Your task to perform on an android device: change keyboard looks Image 0: 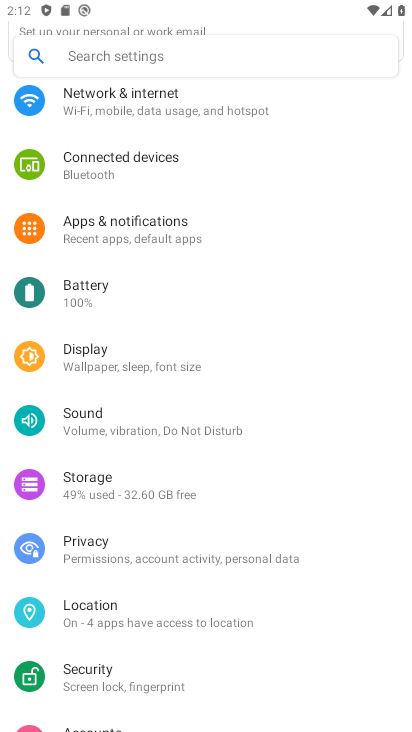
Step 0: drag from (127, 511) to (141, 177)
Your task to perform on an android device: change keyboard looks Image 1: 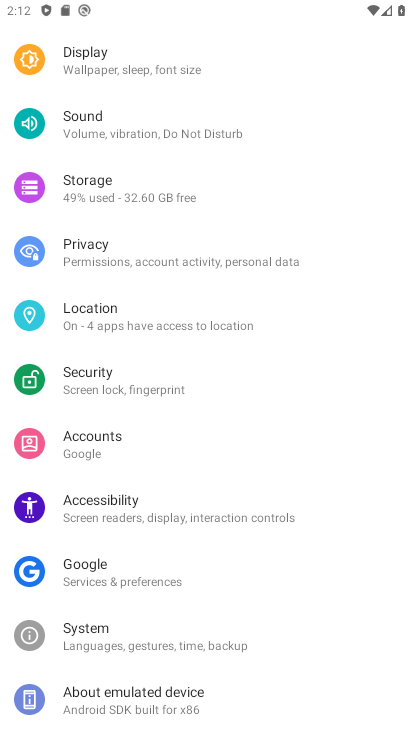
Step 1: click (174, 643)
Your task to perform on an android device: change keyboard looks Image 2: 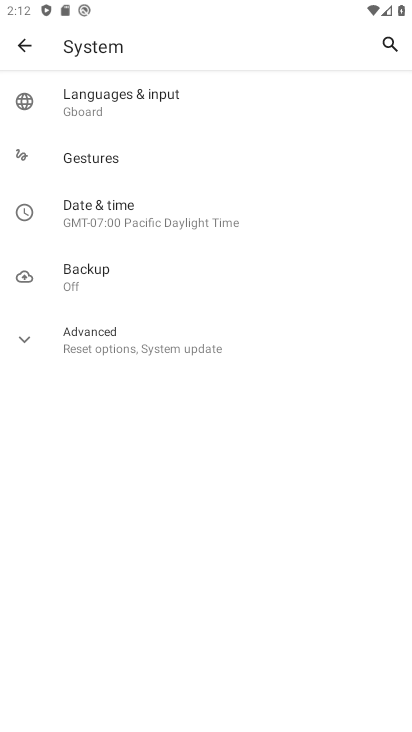
Step 2: click (197, 95)
Your task to perform on an android device: change keyboard looks Image 3: 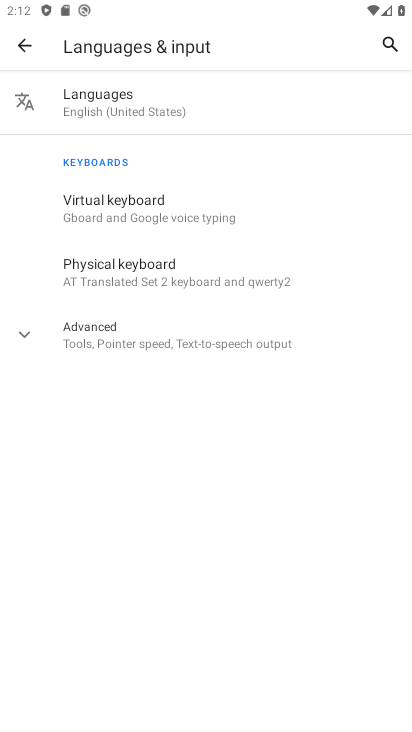
Step 3: click (192, 205)
Your task to perform on an android device: change keyboard looks Image 4: 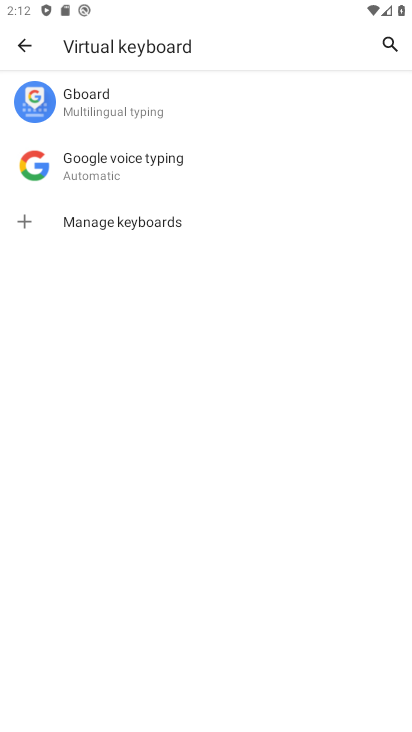
Step 4: click (135, 87)
Your task to perform on an android device: change keyboard looks Image 5: 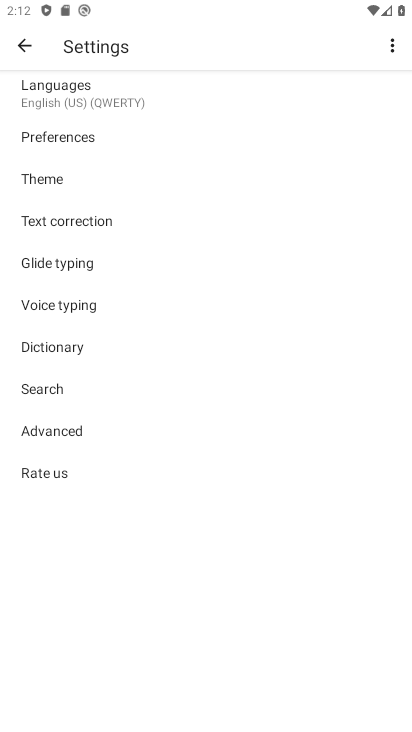
Step 5: click (168, 173)
Your task to perform on an android device: change keyboard looks Image 6: 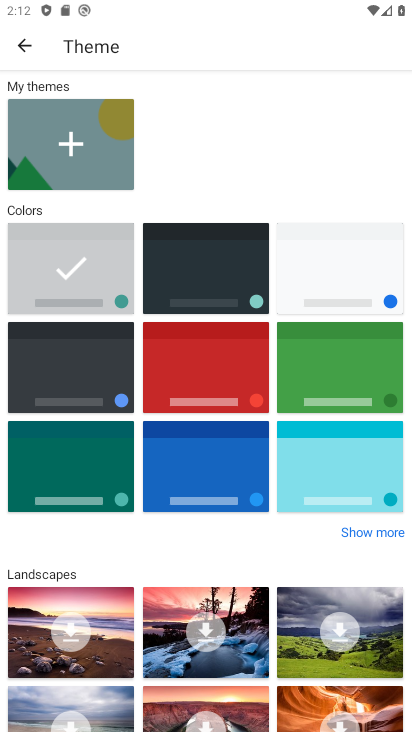
Step 6: click (185, 291)
Your task to perform on an android device: change keyboard looks Image 7: 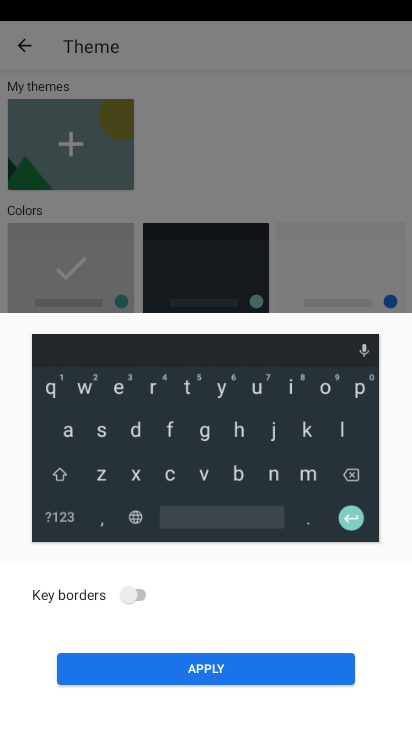
Step 7: click (203, 651)
Your task to perform on an android device: change keyboard looks Image 8: 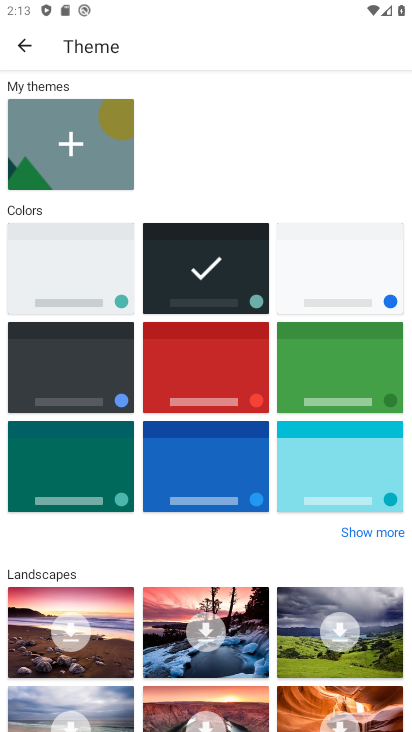
Step 8: task complete